Your task to perform on an android device: Open Chrome and go to settings Image 0: 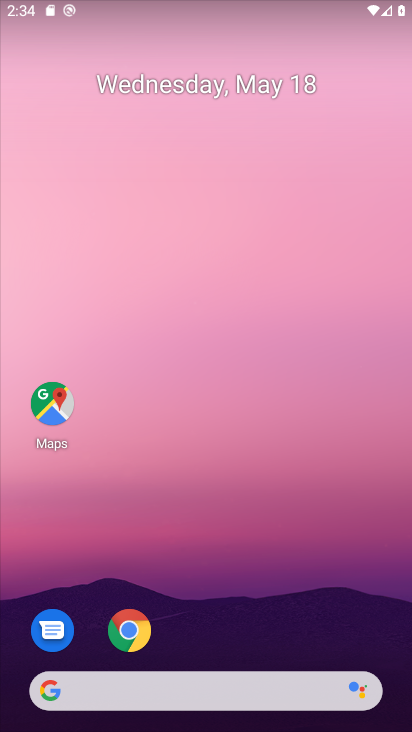
Step 0: press home button
Your task to perform on an android device: Open Chrome and go to settings Image 1: 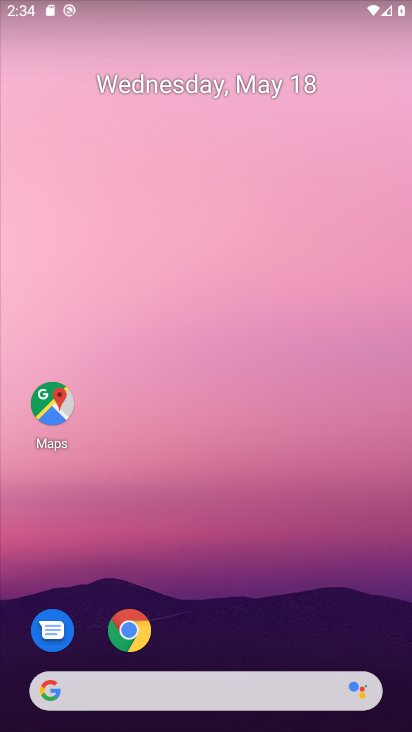
Step 1: press home button
Your task to perform on an android device: Open Chrome and go to settings Image 2: 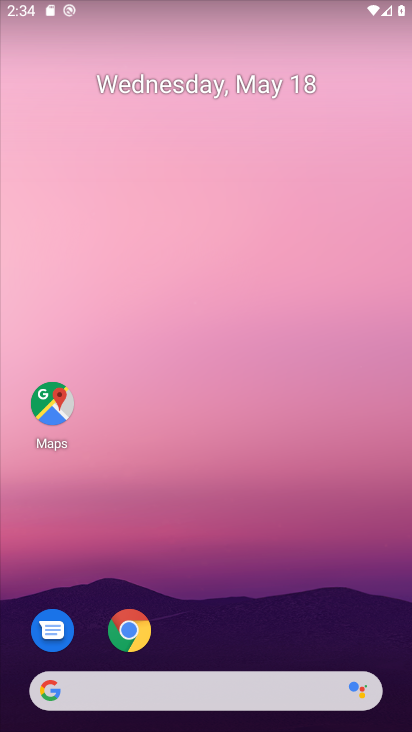
Step 2: drag from (203, 650) to (204, 433)
Your task to perform on an android device: Open Chrome and go to settings Image 3: 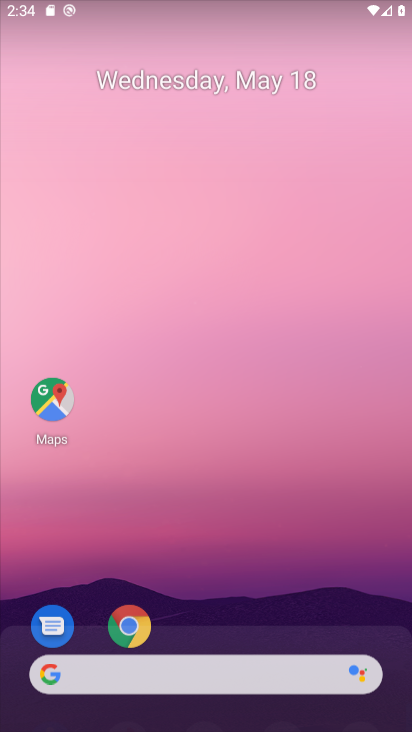
Step 3: drag from (224, 171) to (229, 63)
Your task to perform on an android device: Open Chrome and go to settings Image 4: 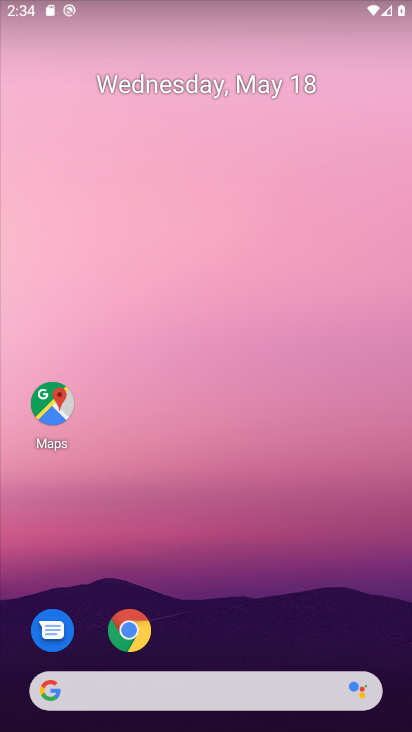
Step 4: click (130, 629)
Your task to perform on an android device: Open Chrome and go to settings Image 5: 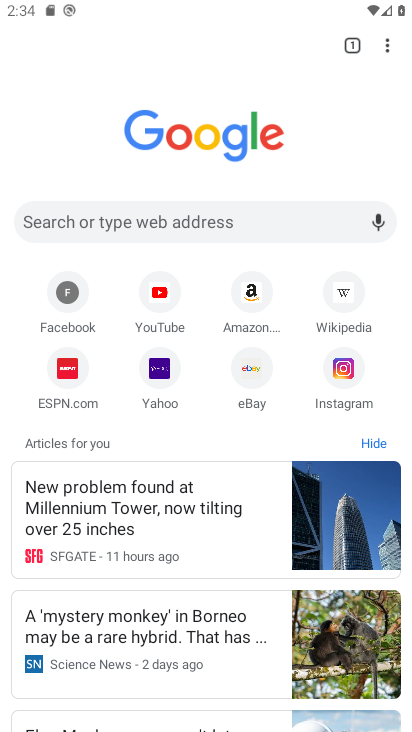
Step 5: click (389, 39)
Your task to perform on an android device: Open Chrome and go to settings Image 6: 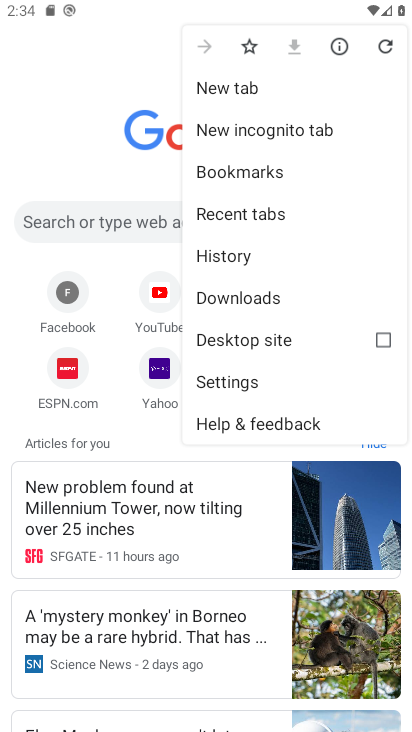
Step 6: click (270, 383)
Your task to perform on an android device: Open Chrome and go to settings Image 7: 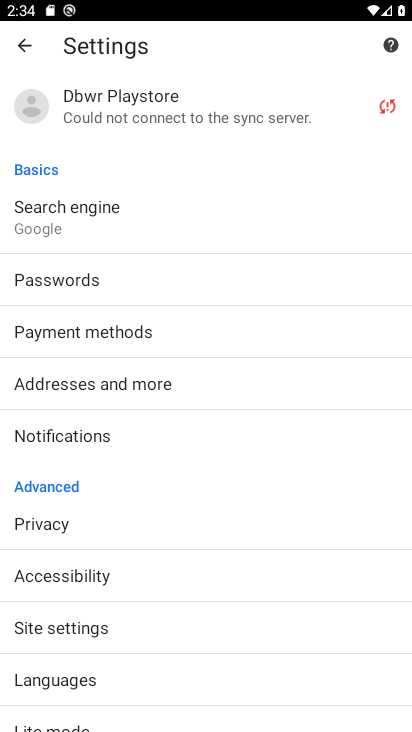
Step 7: task complete